Your task to perform on an android device: What's the weather today? Image 0: 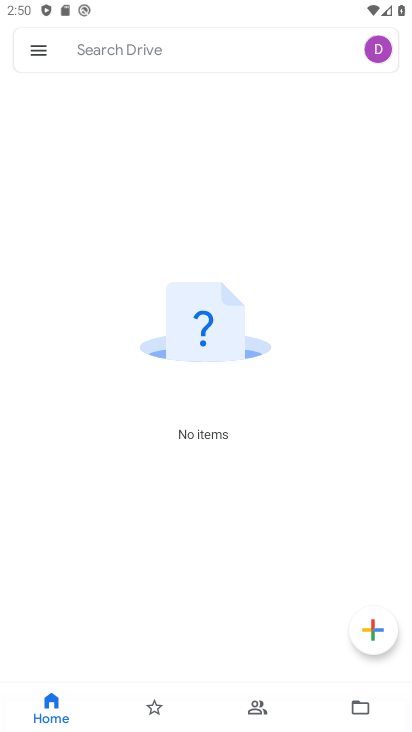
Step 0: press home button
Your task to perform on an android device: What's the weather today? Image 1: 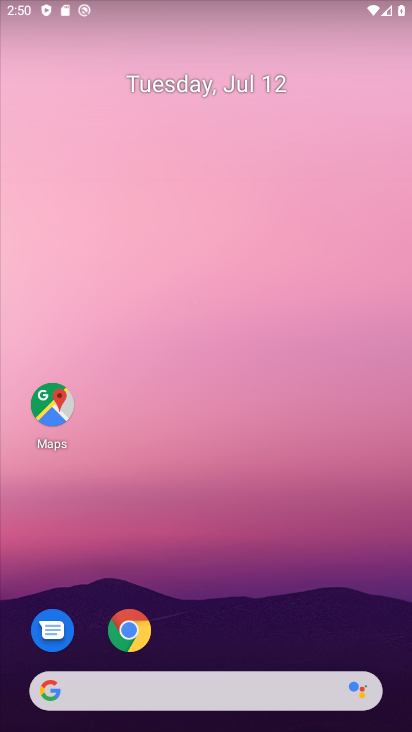
Step 1: drag from (277, 626) to (331, 74)
Your task to perform on an android device: What's the weather today? Image 2: 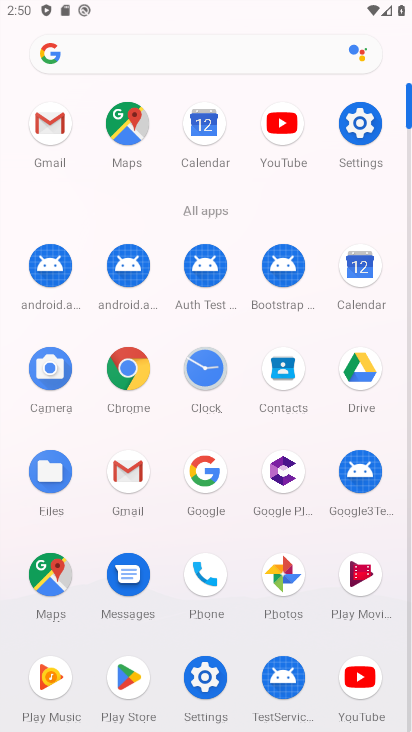
Step 2: click (126, 375)
Your task to perform on an android device: What's the weather today? Image 3: 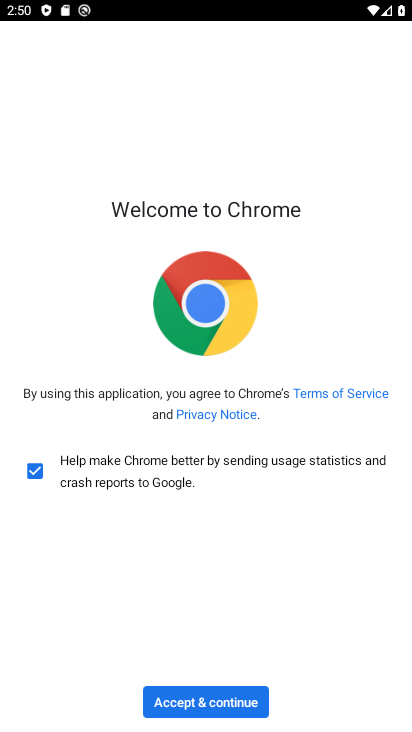
Step 3: click (200, 695)
Your task to perform on an android device: What's the weather today? Image 4: 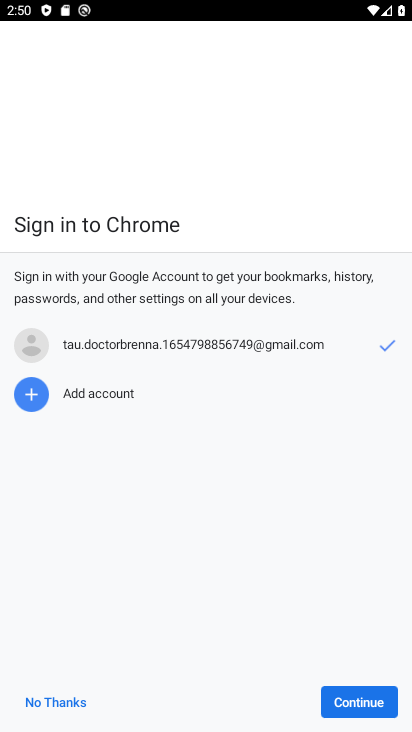
Step 4: click (81, 701)
Your task to perform on an android device: What's the weather today? Image 5: 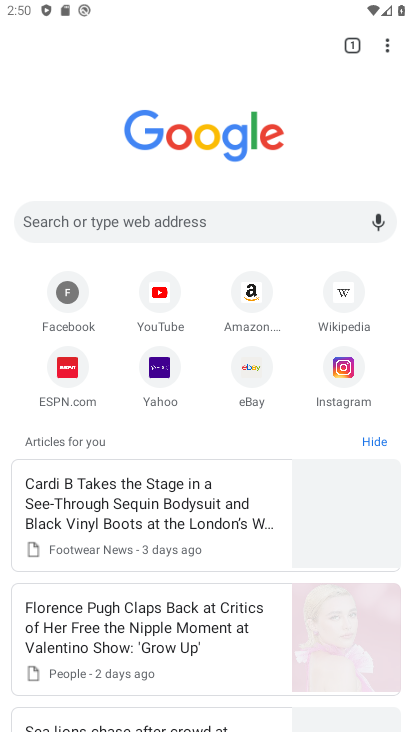
Step 5: click (184, 230)
Your task to perform on an android device: What's the weather today? Image 6: 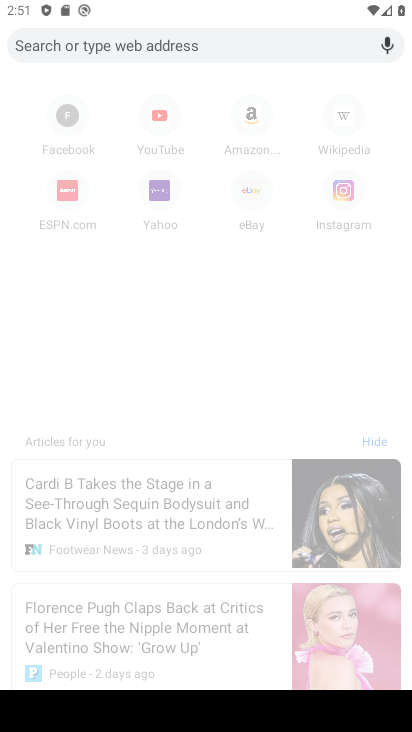
Step 6: type "whats the weather today?"
Your task to perform on an android device: What's the weather today? Image 7: 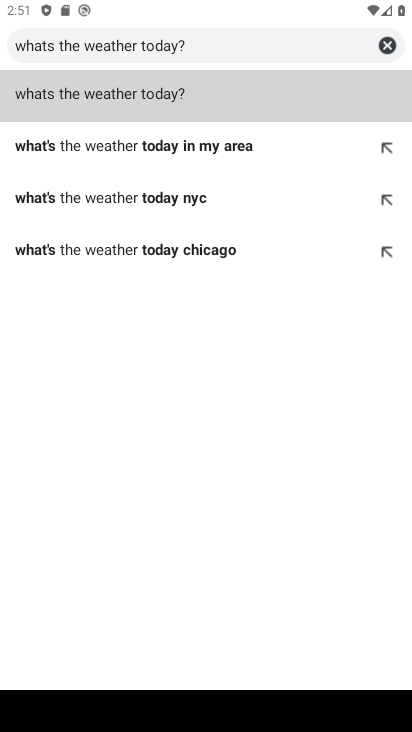
Step 7: click (201, 107)
Your task to perform on an android device: What's the weather today? Image 8: 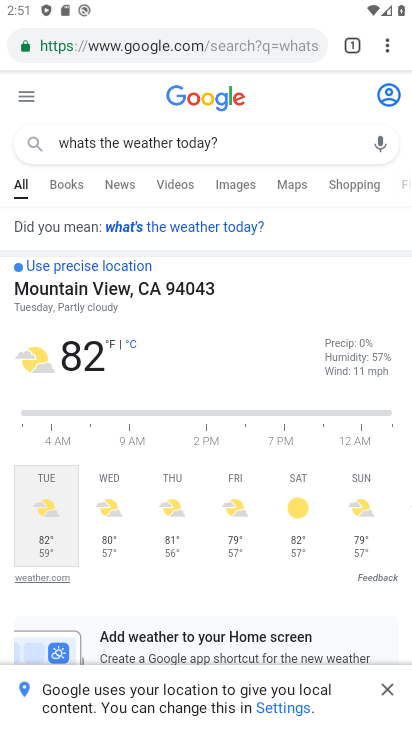
Step 8: task complete